Your task to perform on an android device: find photos in the google photos app Image 0: 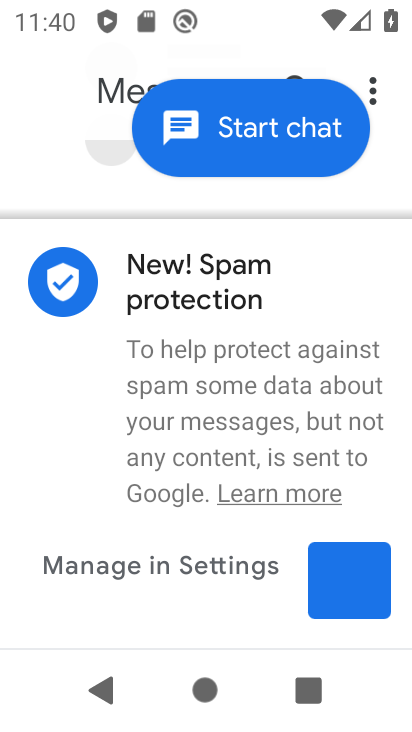
Step 0: press back button
Your task to perform on an android device: find photos in the google photos app Image 1: 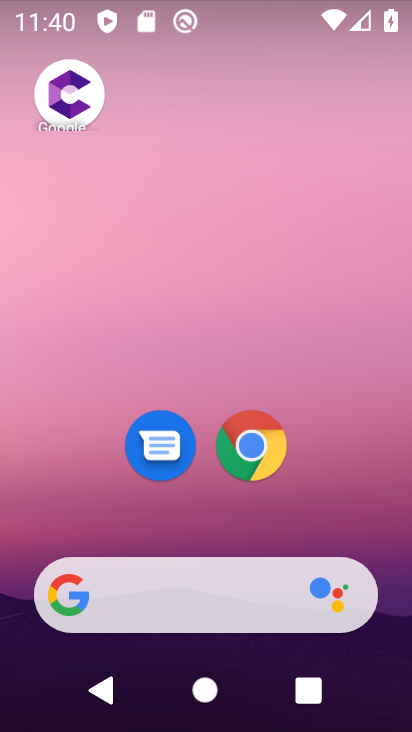
Step 1: drag from (204, 544) to (308, 18)
Your task to perform on an android device: find photos in the google photos app Image 2: 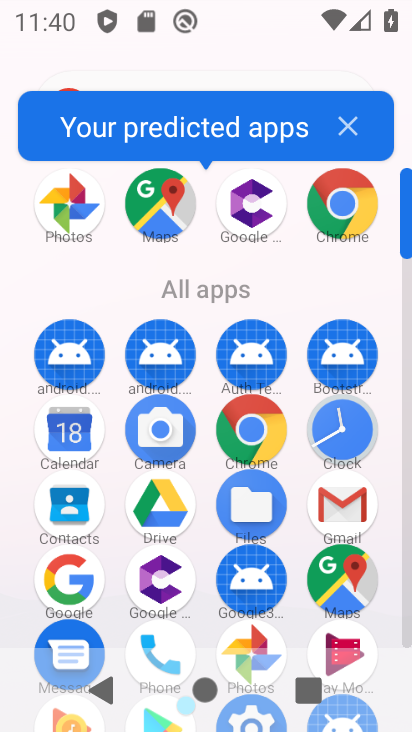
Step 2: click (257, 637)
Your task to perform on an android device: find photos in the google photos app Image 3: 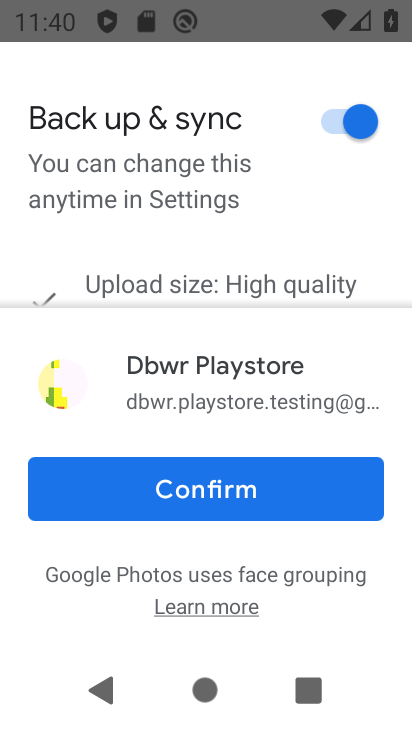
Step 3: click (194, 500)
Your task to perform on an android device: find photos in the google photos app Image 4: 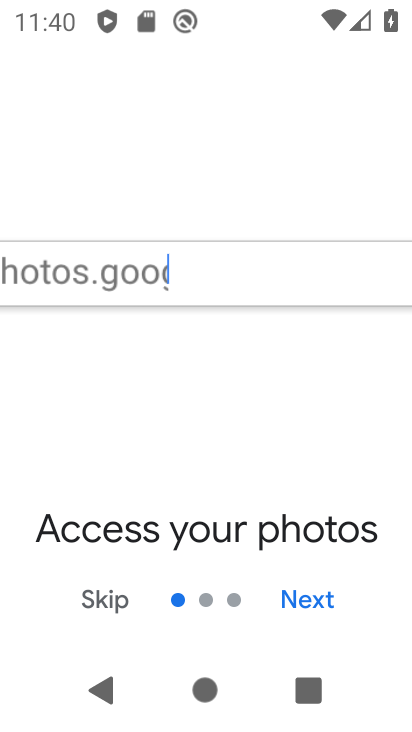
Step 4: click (322, 598)
Your task to perform on an android device: find photos in the google photos app Image 5: 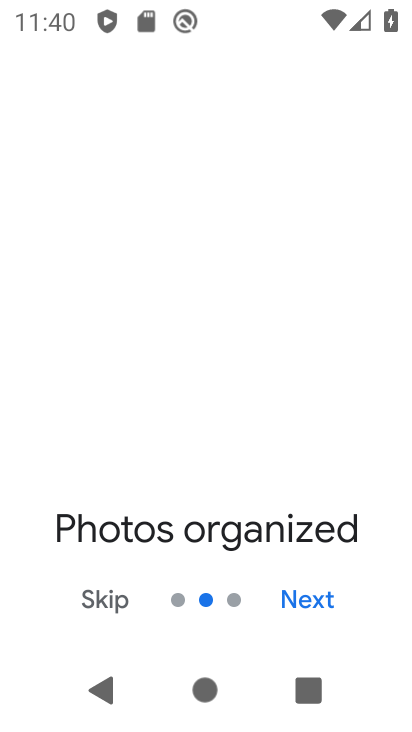
Step 5: click (314, 600)
Your task to perform on an android device: find photos in the google photos app Image 6: 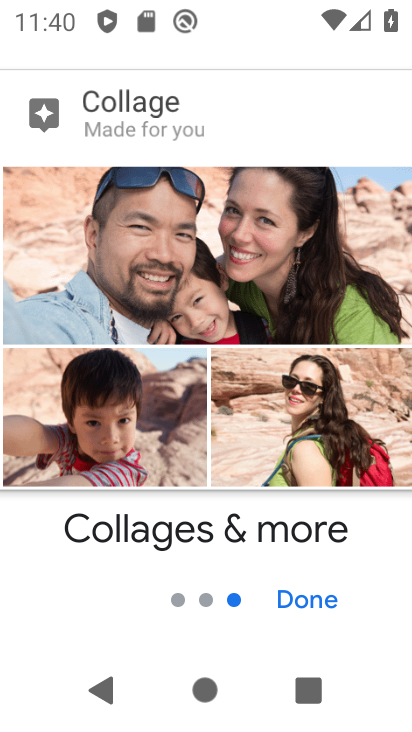
Step 6: click (296, 615)
Your task to perform on an android device: find photos in the google photos app Image 7: 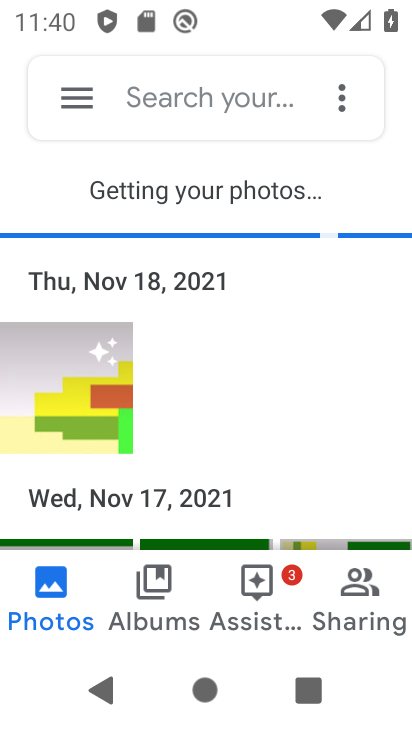
Step 7: click (42, 591)
Your task to perform on an android device: find photos in the google photos app Image 8: 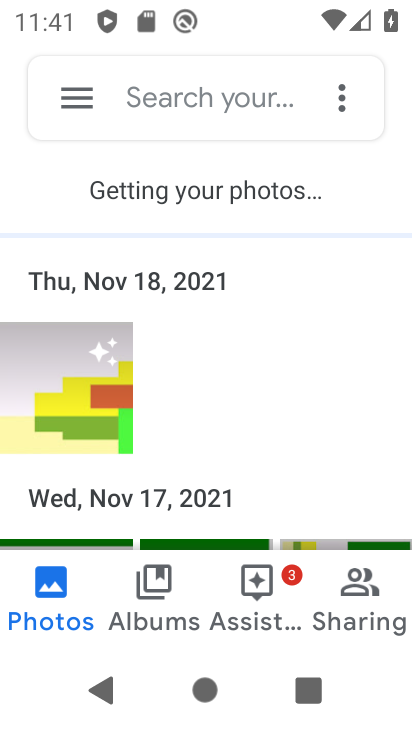
Step 8: task complete